Your task to perform on an android device: change the clock style Image 0: 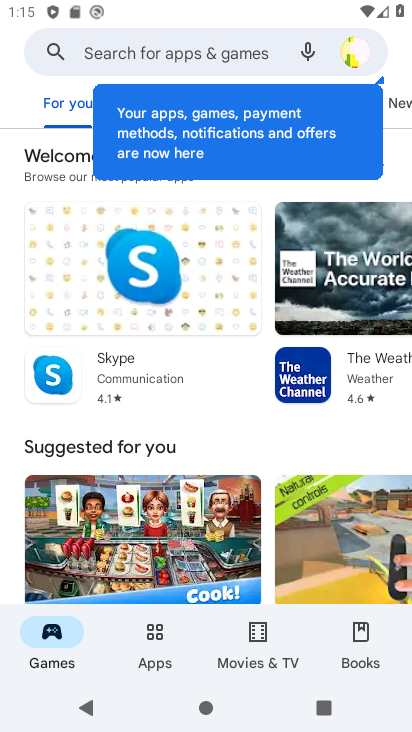
Step 0: press home button
Your task to perform on an android device: change the clock style Image 1: 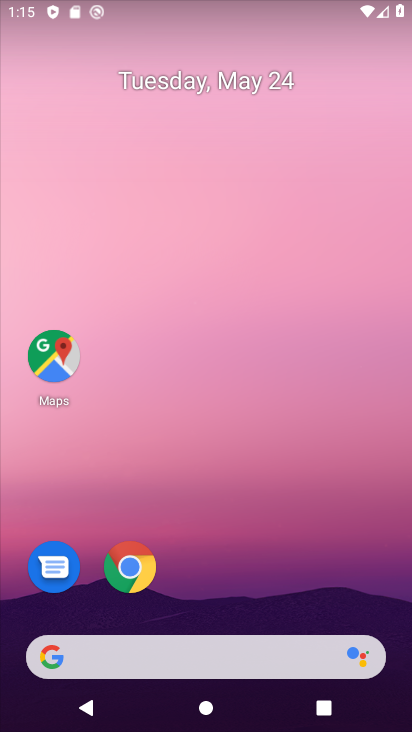
Step 1: drag from (235, 601) to (247, 4)
Your task to perform on an android device: change the clock style Image 2: 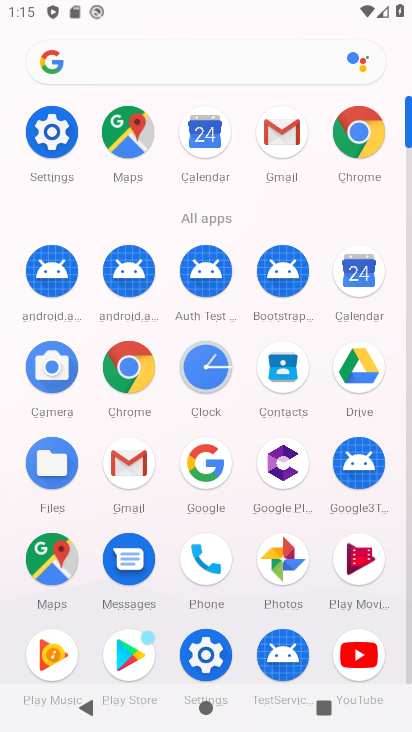
Step 2: click (193, 356)
Your task to perform on an android device: change the clock style Image 3: 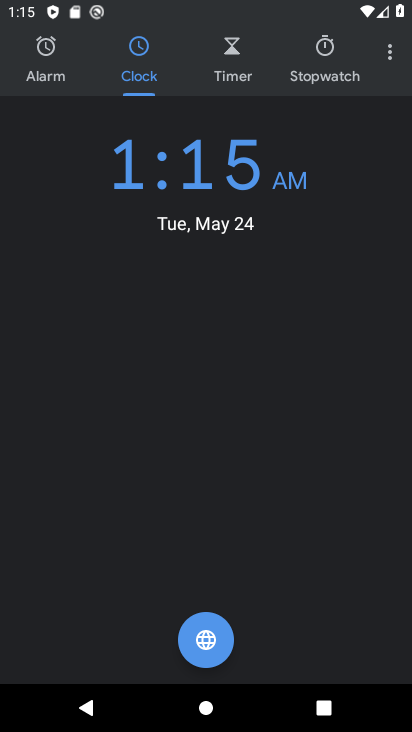
Step 3: click (385, 61)
Your task to perform on an android device: change the clock style Image 4: 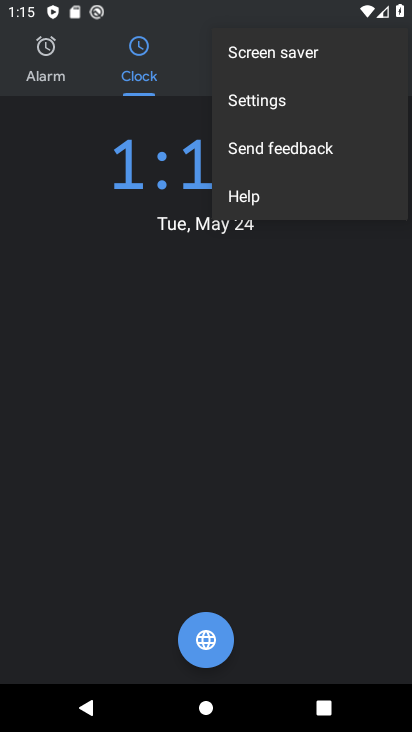
Step 4: click (261, 107)
Your task to perform on an android device: change the clock style Image 5: 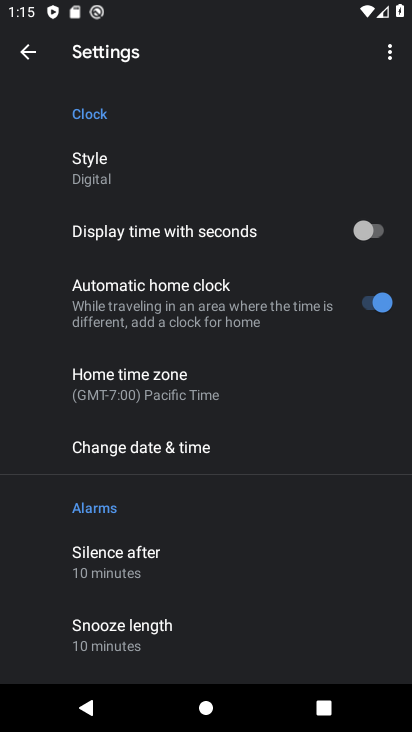
Step 5: click (100, 186)
Your task to perform on an android device: change the clock style Image 6: 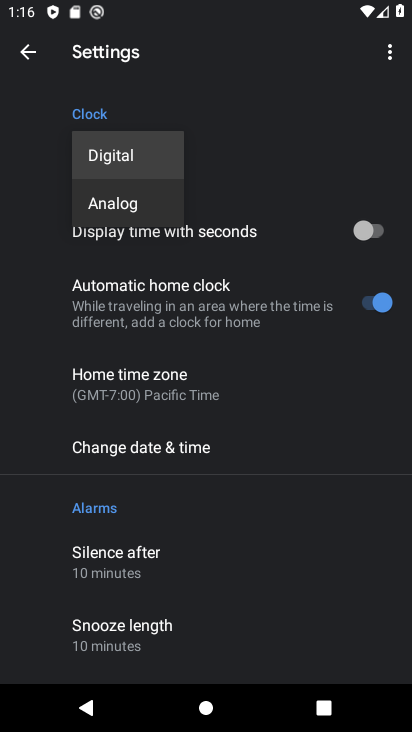
Step 6: click (142, 198)
Your task to perform on an android device: change the clock style Image 7: 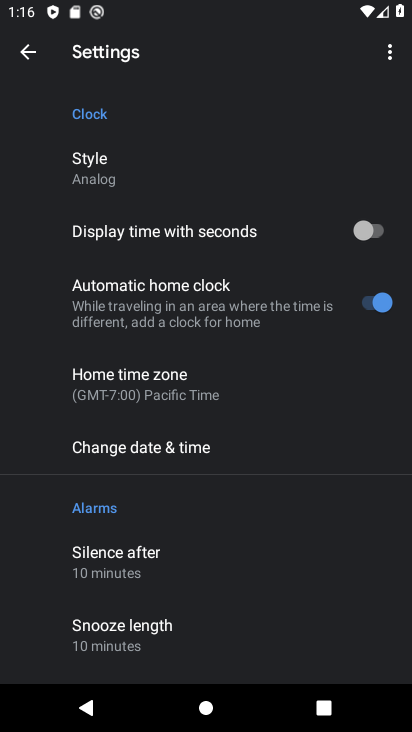
Step 7: task complete